Your task to perform on an android device: delete browsing data in the chrome app Image 0: 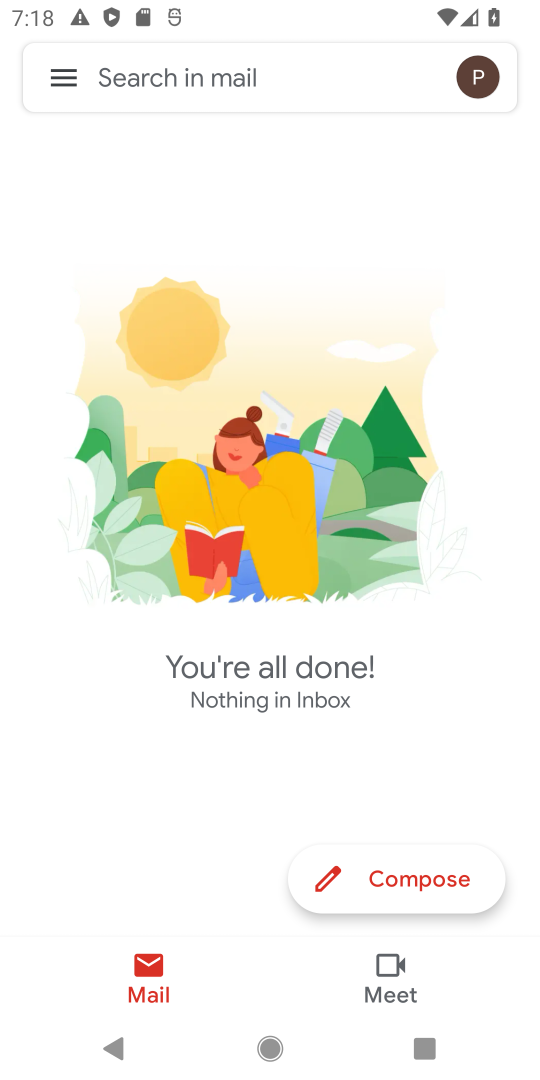
Step 0: press home button
Your task to perform on an android device: delete browsing data in the chrome app Image 1: 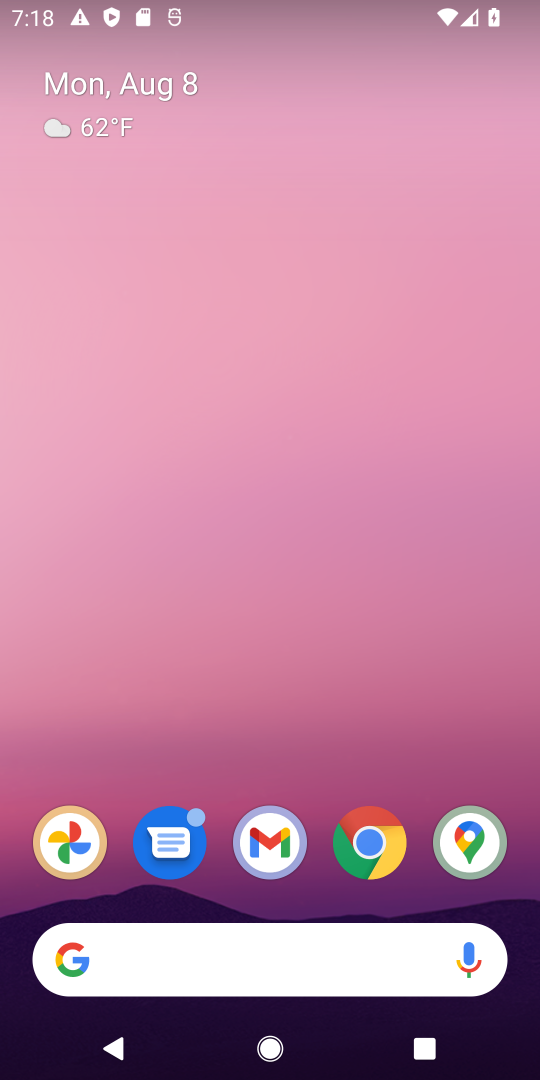
Step 1: drag from (514, 929) to (433, 330)
Your task to perform on an android device: delete browsing data in the chrome app Image 2: 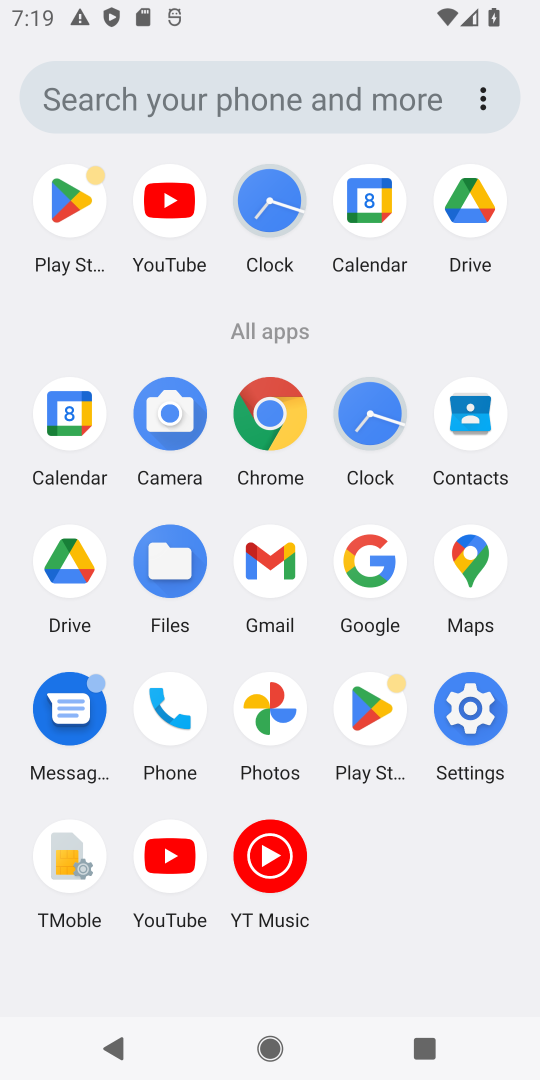
Step 2: click (271, 417)
Your task to perform on an android device: delete browsing data in the chrome app Image 3: 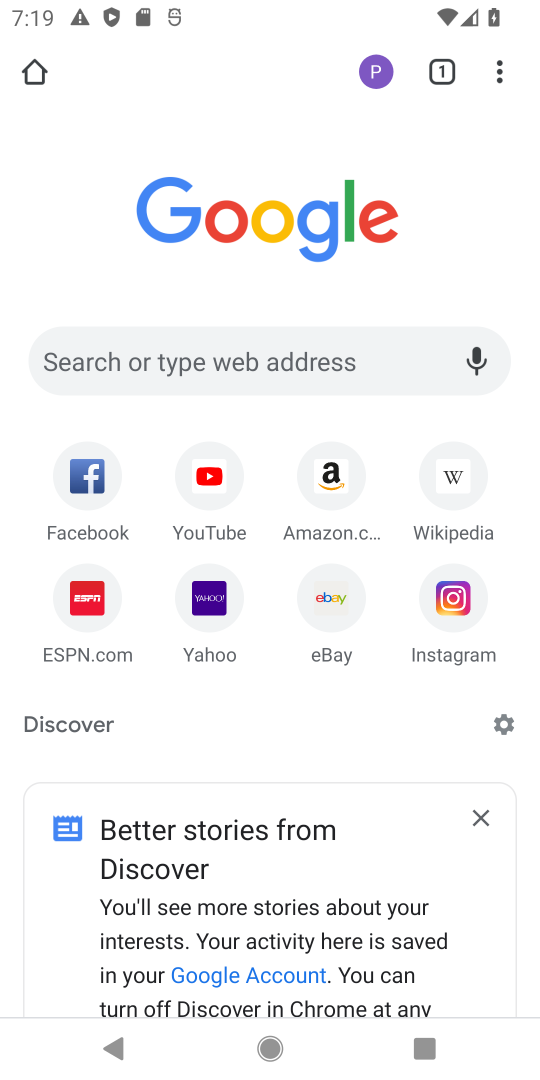
Step 3: click (503, 63)
Your task to perform on an android device: delete browsing data in the chrome app Image 4: 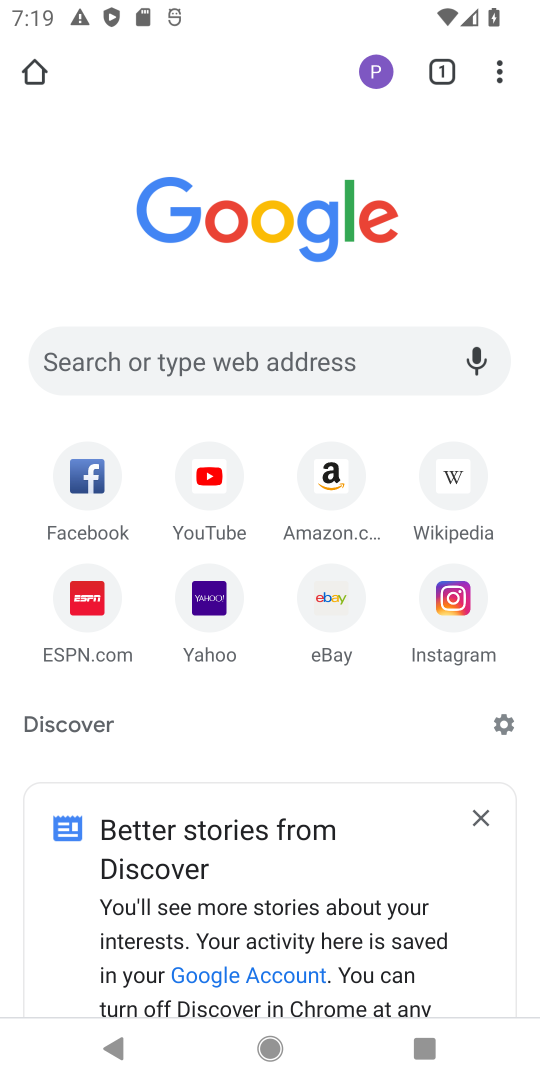
Step 4: click (501, 72)
Your task to perform on an android device: delete browsing data in the chrome app Image 5: 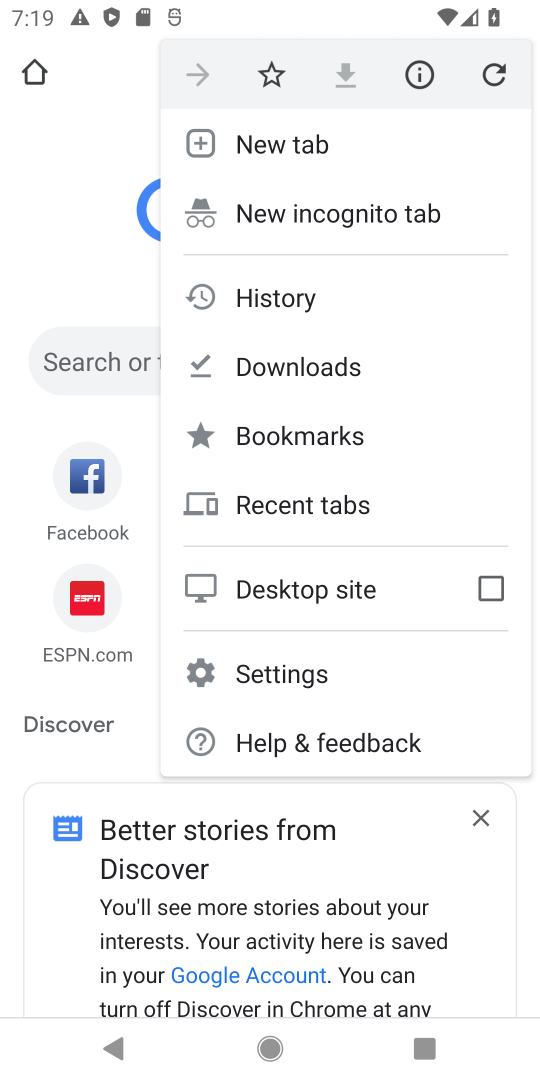
Step 5: click (265, 667)
Your task to perform on an android device: delete browsing data in the chrome app Image 6: 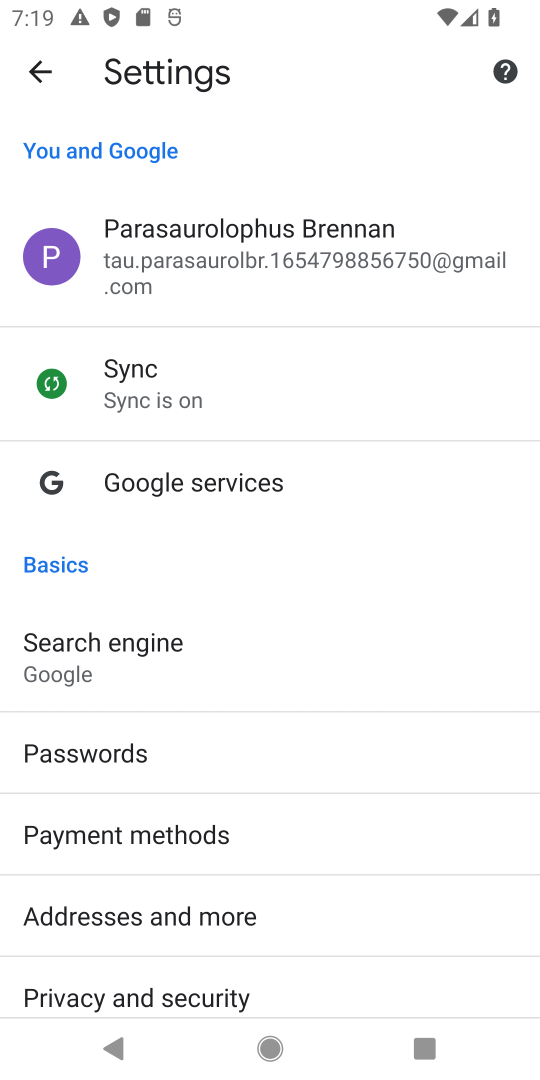
Step 6: click (40, 67)
Your task to perform on an android device: delete browsing data in the chrome app Image 7: 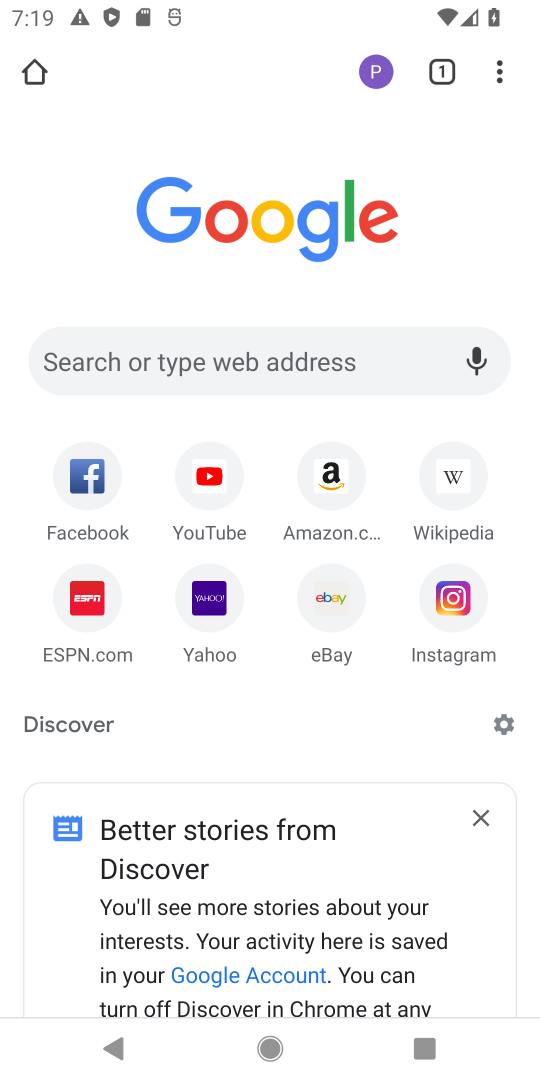
Step 7: click (495, 54)
Your task to perform on an android device: delete browsing data in the chrome app Image 8: 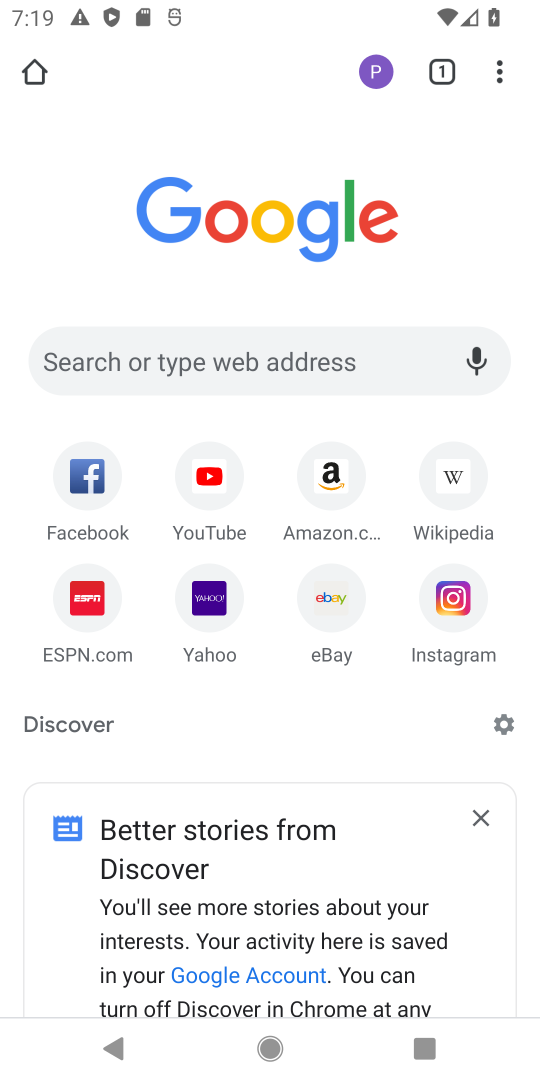
Step 8: click (495, 66)
Your task to perform on an android device: delete browsing data in the chrome app Image 9: 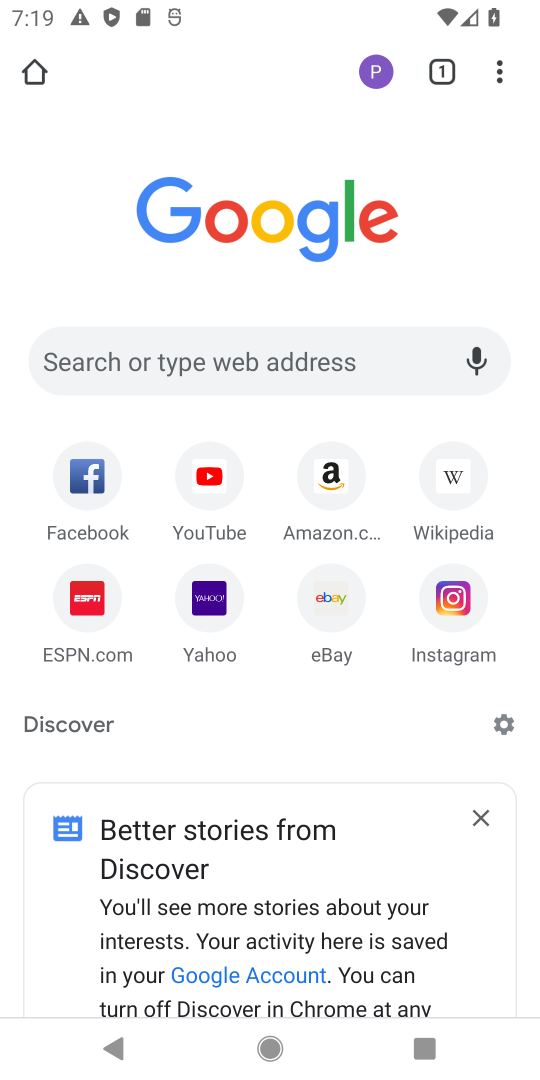
Step 9: click (496, 71)
Your task to perform on an android device: delete browsing data in the chrome app Image 10: 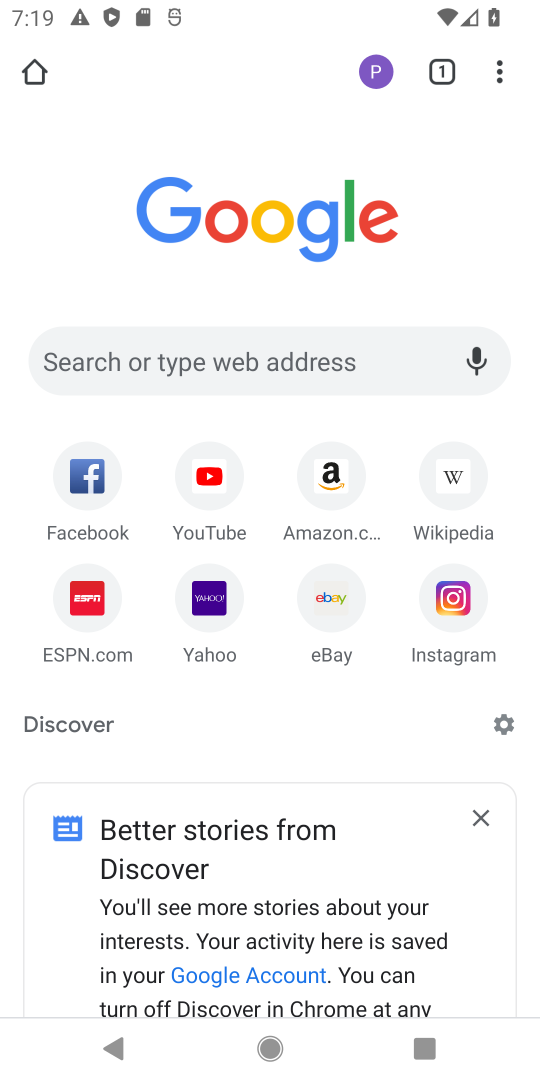
Step 10: click (496, 71)
Your task to perform on an android device: delete browsing data in the chrome app Image 11: 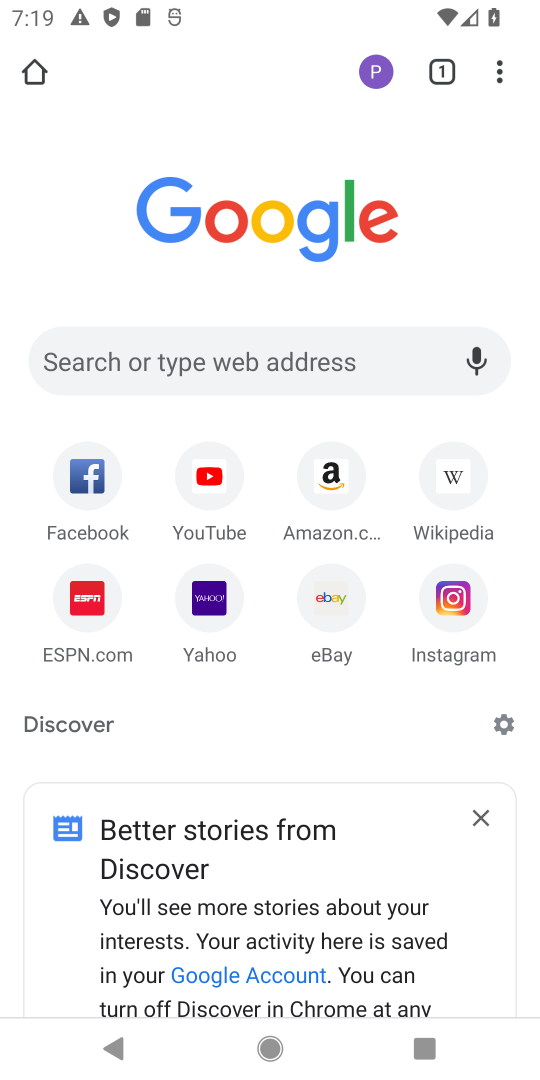
Step 11: click (496, 71)
Your task to perform on an android device: delete browsing data in the chrome app Image 12: 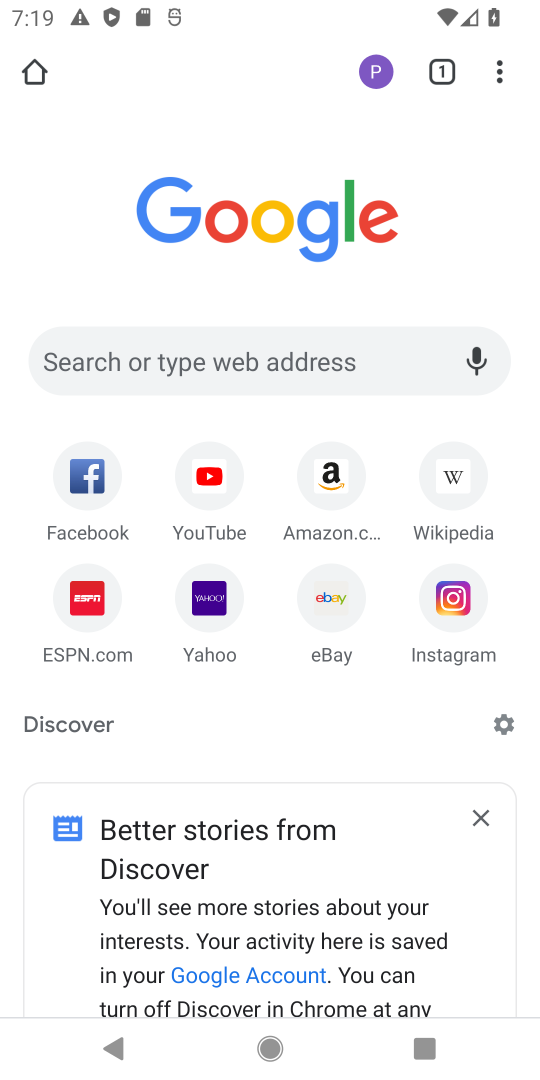
Step 12: click (496, 71)
Your task to perform on an android device: delete browsing data in the chrome app Image 13: 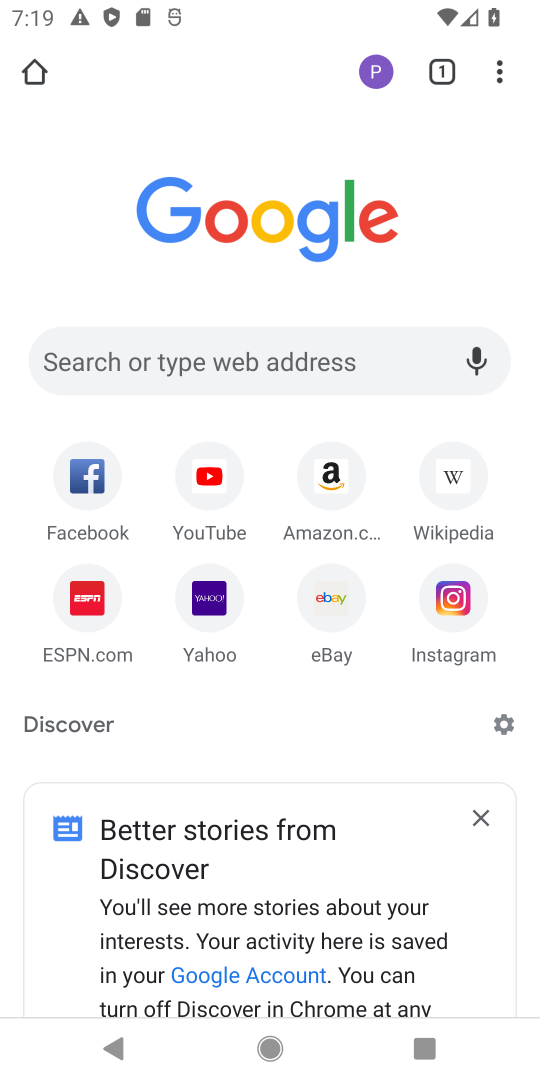
Step 13: click (496, 71)
Your task to perform on an android device: delete browsing data in the chrome app Image 14: 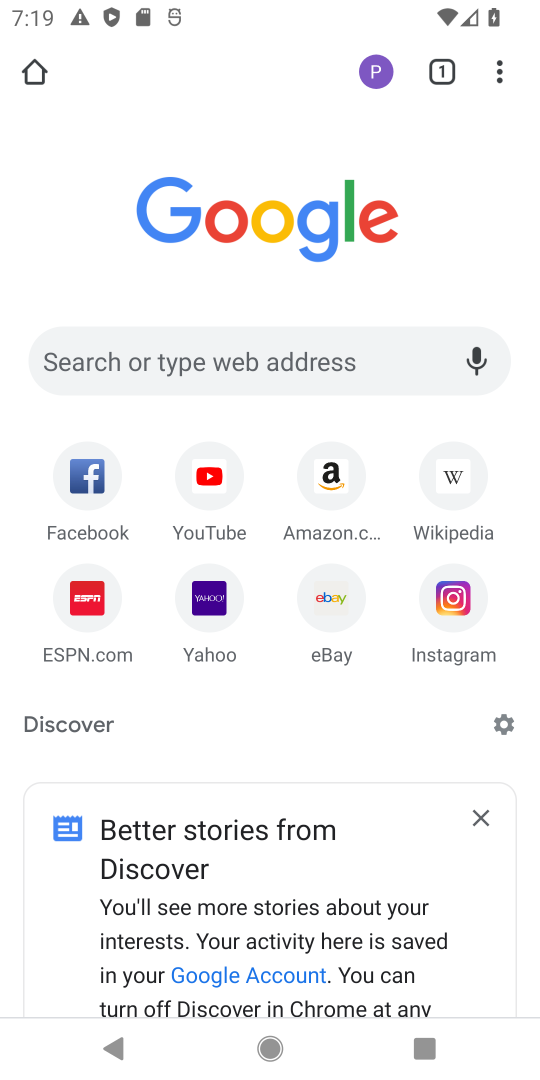
Step 14: click (496, 71)
Your task to perform on an android device: delete browsing data in the chrome app Image 15: 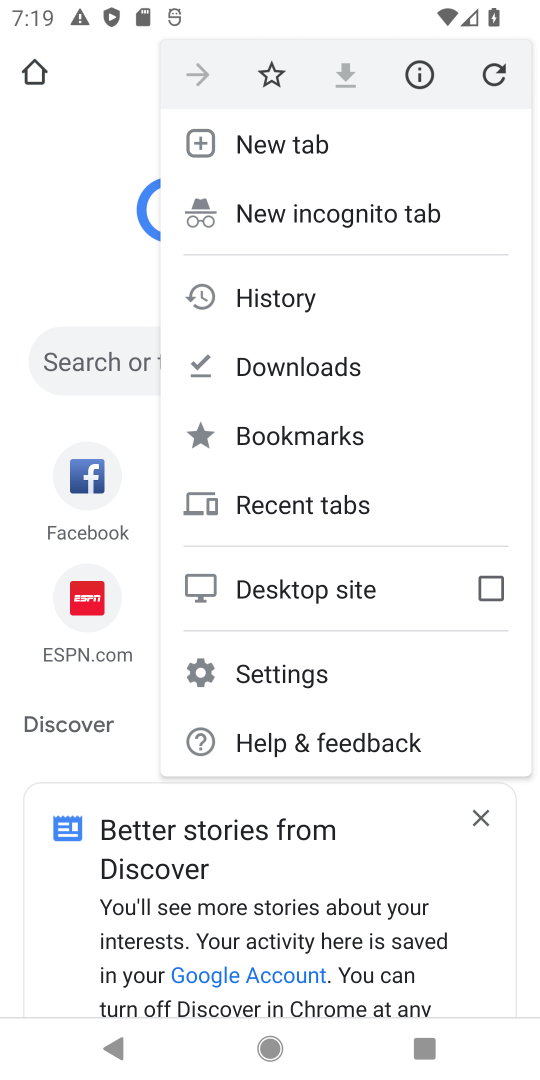
Step 15: click (496, 71)
Your task to perform on an android device: delete browsing data in the chrome app Image 16: 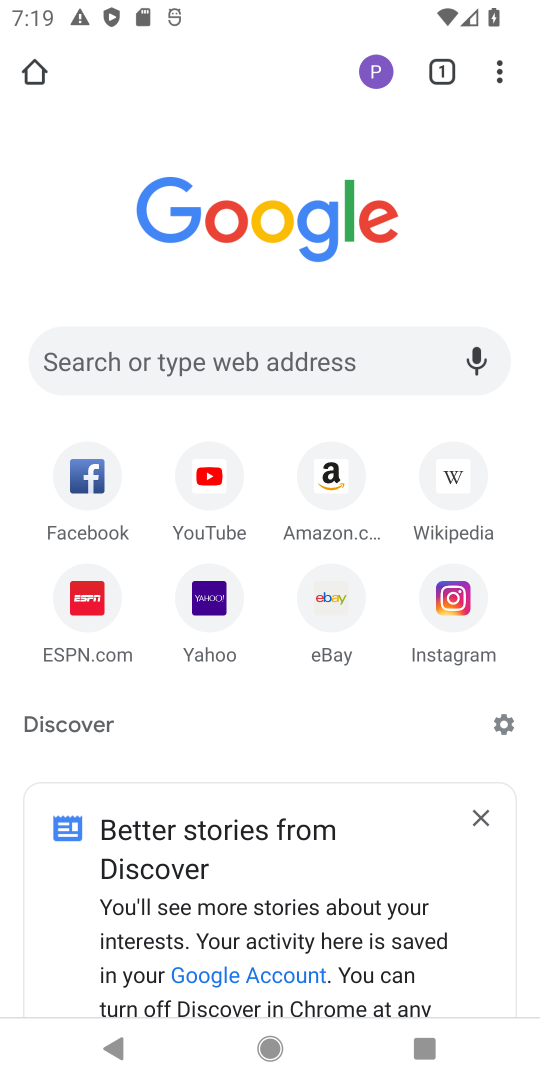
Step 16: click (496, 71)
Your task to perform on an android device: delete browsing data in the chrome app Image 17: 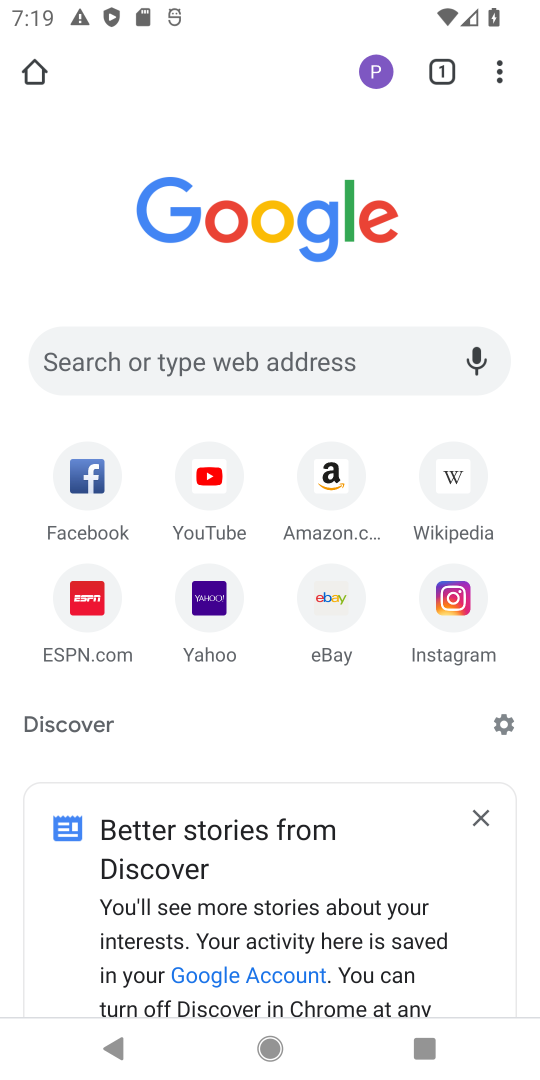
Step 17: click (496, 71)
Your task to perform on an android device: delete browsing data in the chrome app Image 18: 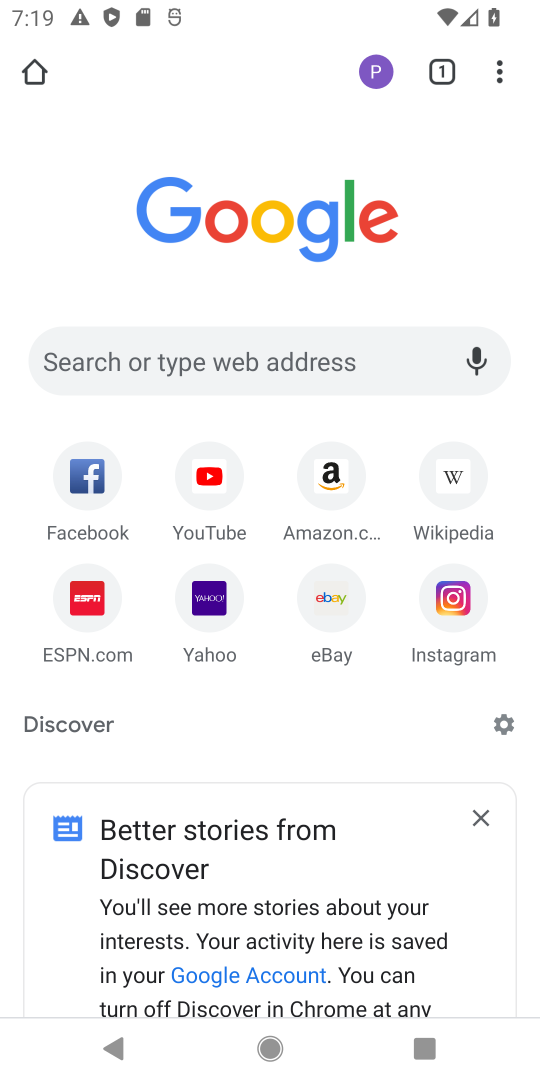
Step 18: click (496, 71)
Your task to perform on an android device: delete browsing data in the chrome app Image 19: 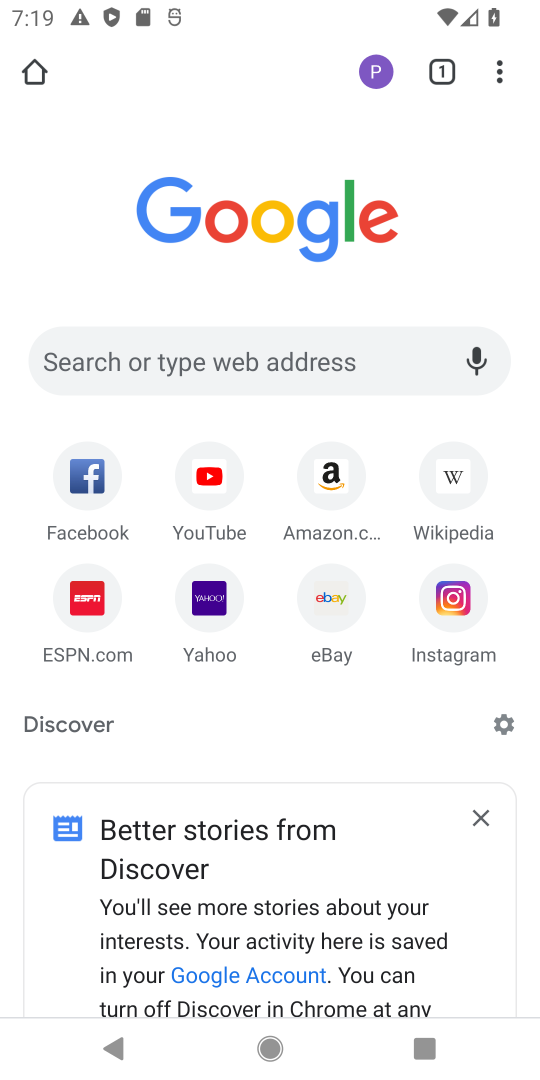
Step 19: click (496, 71)
Your task to perform on an android device: delete browsing data in the chrome app Image 20: 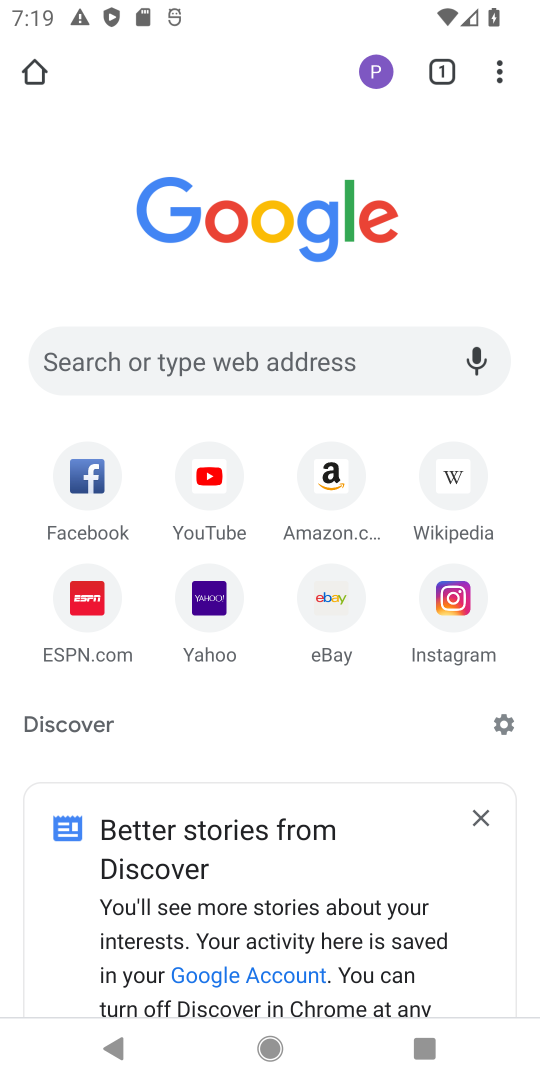
Step 20: click (496, 65)
Your task to perform on an android device: delete browsing data in the chrome app Image 21: 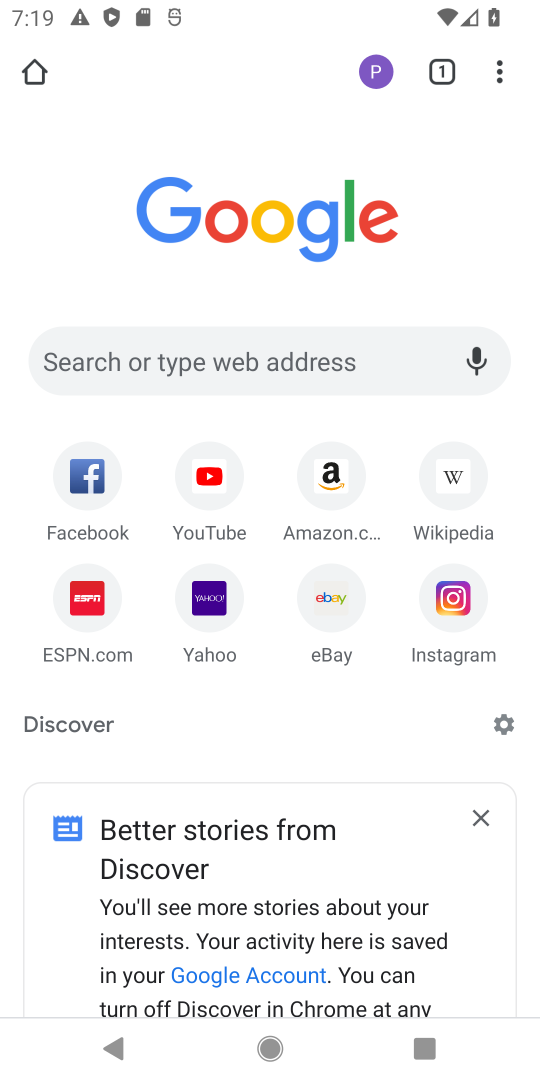
Step 21: click (496, 65)
Your task to perform on an android device: delete browsing data in the chrome app Image 22: 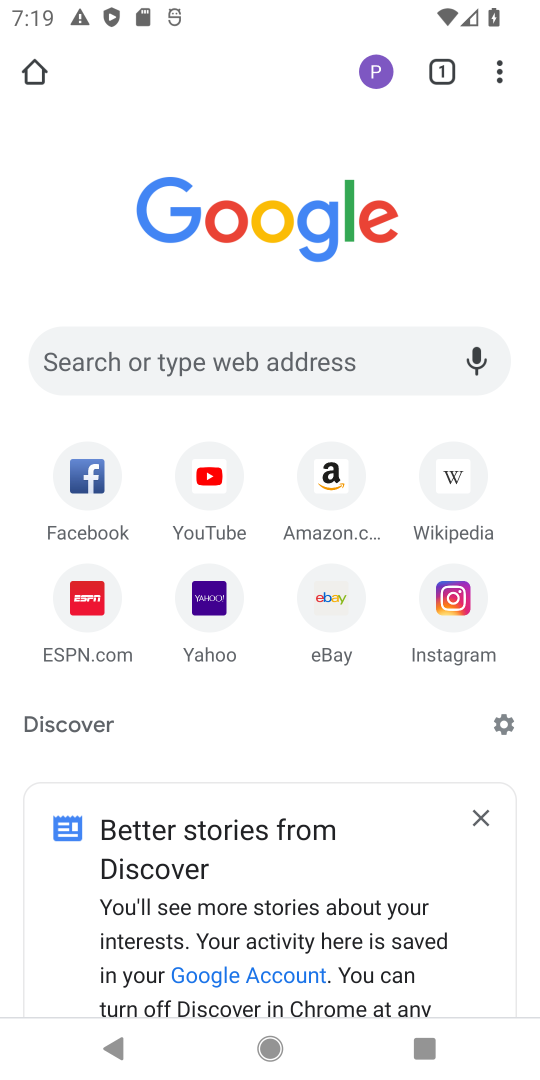
Step 22: click (496, 65)
Your task to perform on an android device: delete browsing data in the chrome app Image 23: 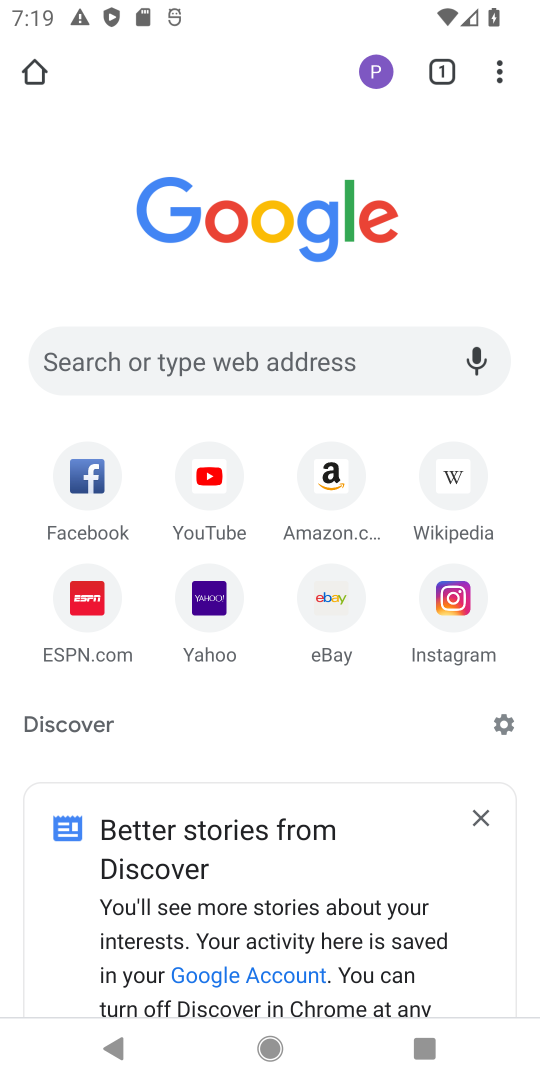
Step 23: click (496, 65)
Your task to perform on an android device: delete browsing data in the chrome app Image 24: 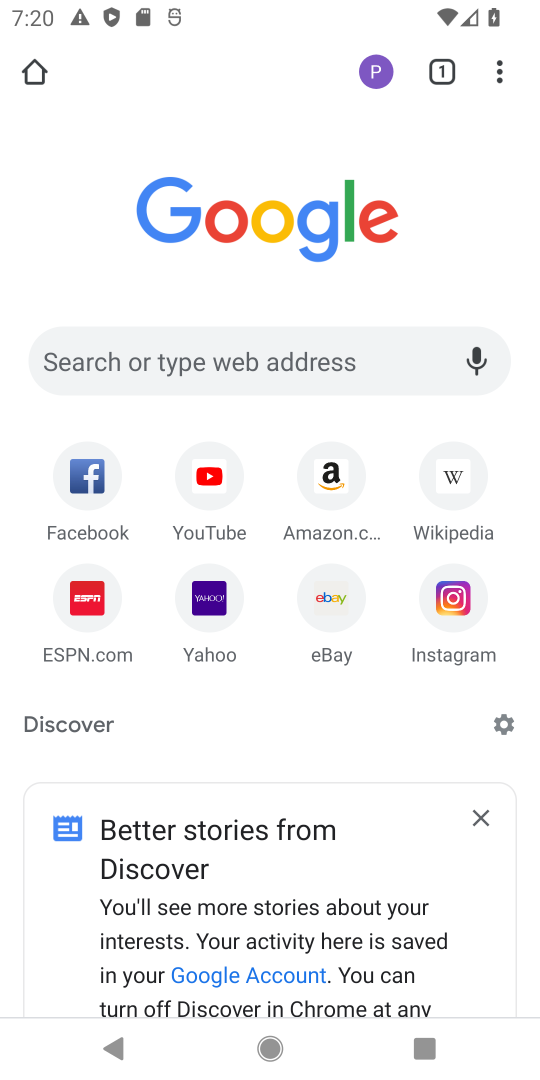
Step 24: click (496, 65)
Your task to perform on an android device: delete browsing data in the chrome app Image 25: 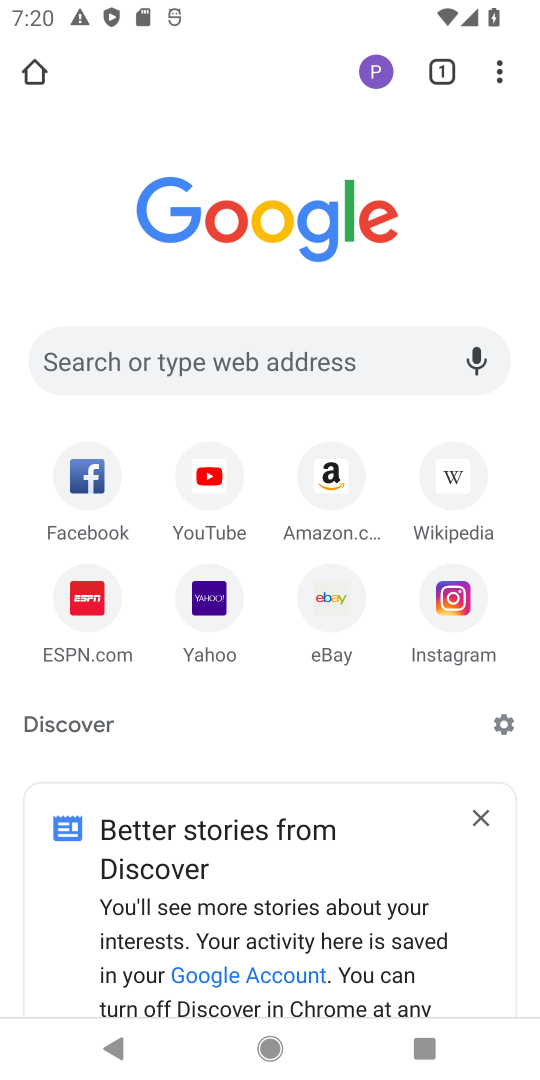
Step 25: click (496, 65)
Your task to perform on an android device: delete browsing data in the chrome app Image 26: 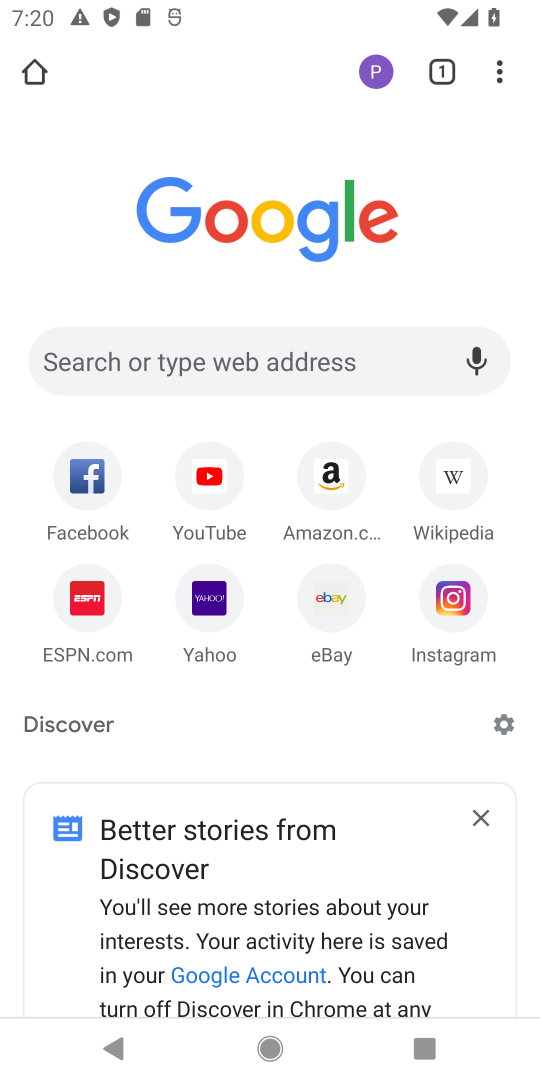
Step 26: click (496, 65)
Your task to perform on an android device: delete browsing data in the chrome app Image 27: 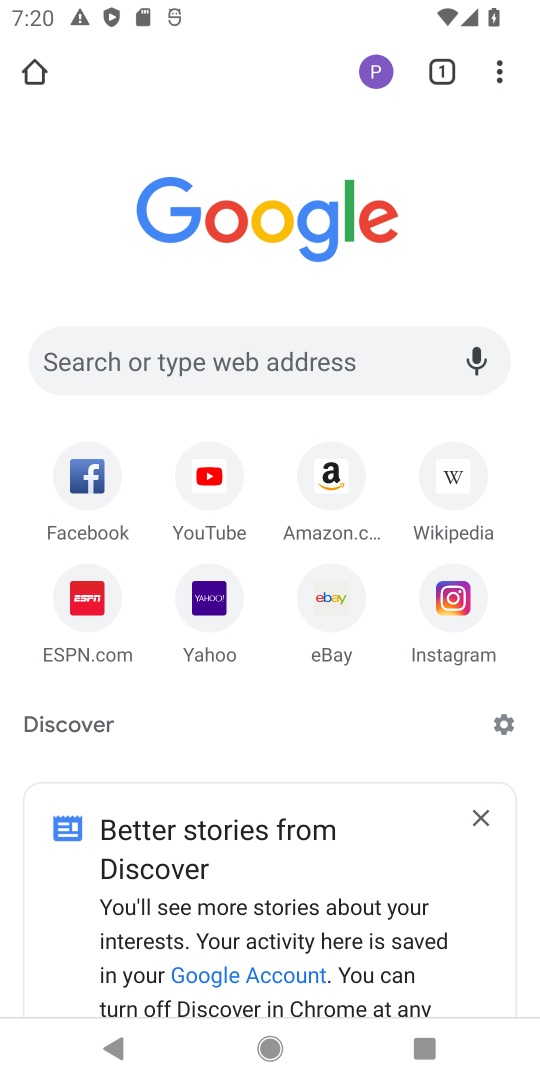
Step 27: click (496, 69)
Your task to perform on an android device: delete browsing data in the chrome app Image 28: 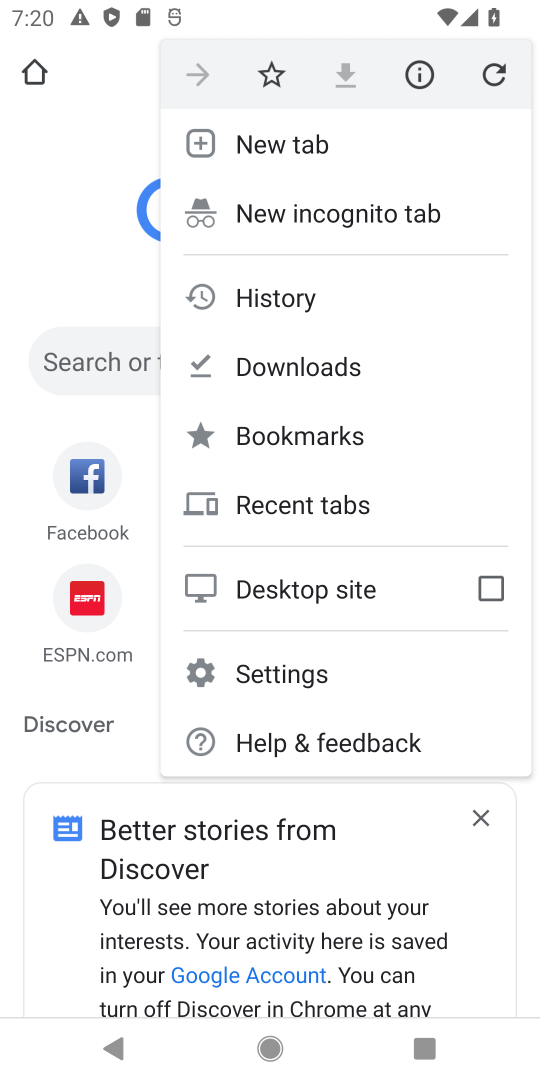
Step 28: click (256, 295)
Your task to perform on an android device: delete browsing data in the chrome app Image 29: 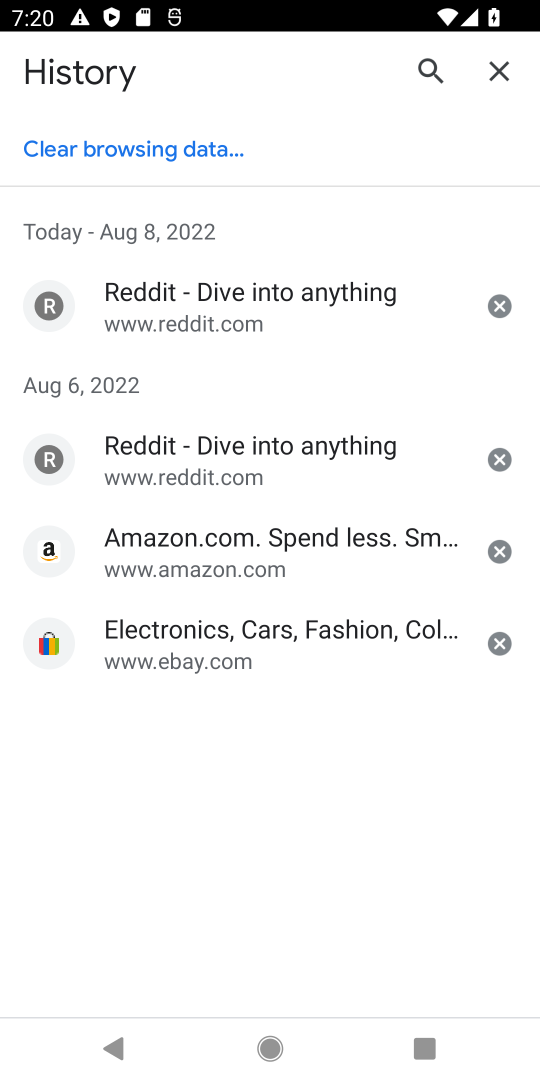
Step 29: click (148, 149)
Your task to perform on an android device: delete browsing data in the chrome app Image 30: 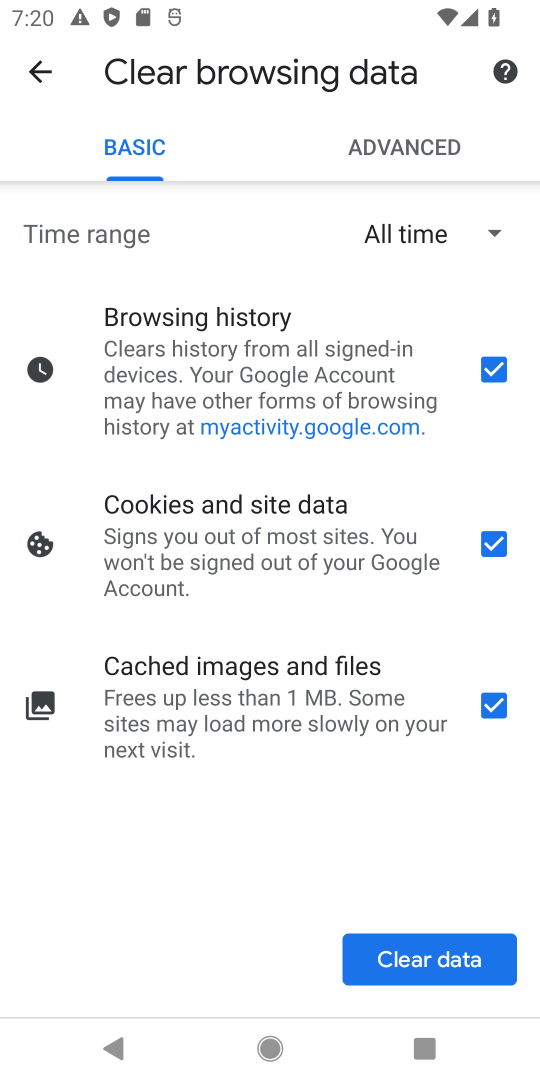
Step 30: click (457, 965)
Your task to perform on an android device: delete browsing data in the chrome app Image 31: 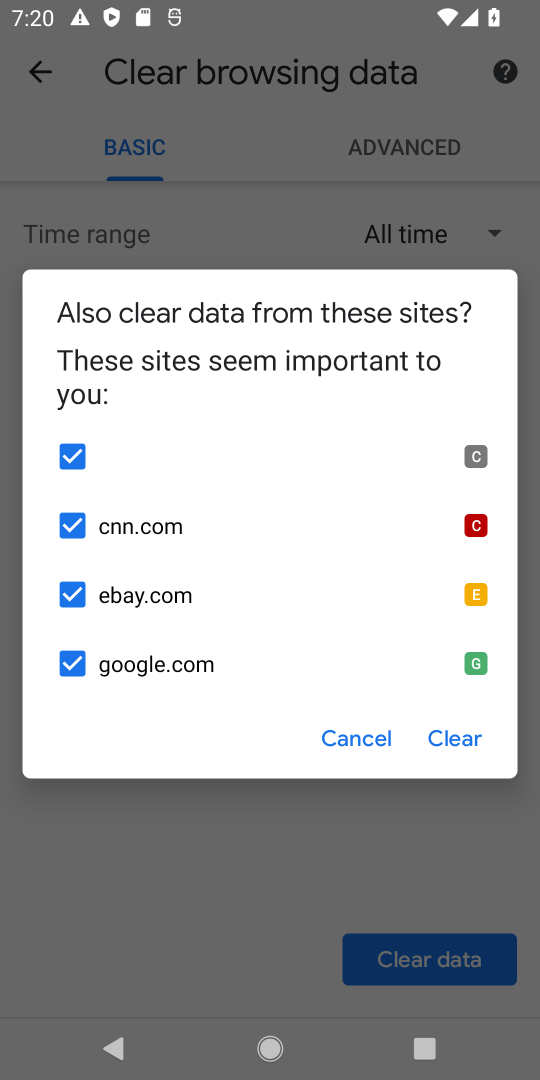
Step 31: click (450, 736)
Your task to perform on an android device: delete browsing data in the chrome app Image 32: 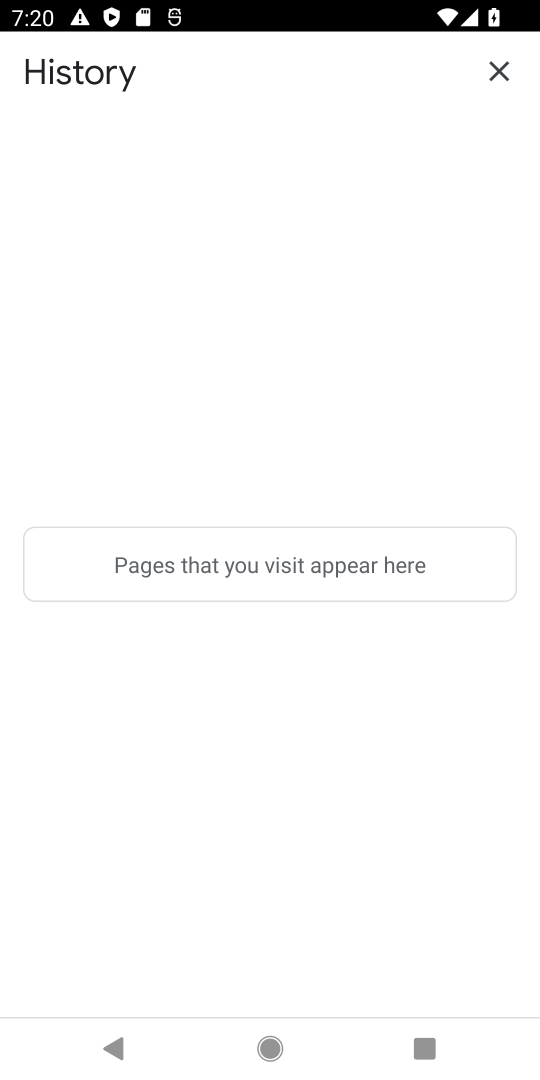
Step 32: task complete